Your task to perform on an android device: star an email in the gmail app Image 0: 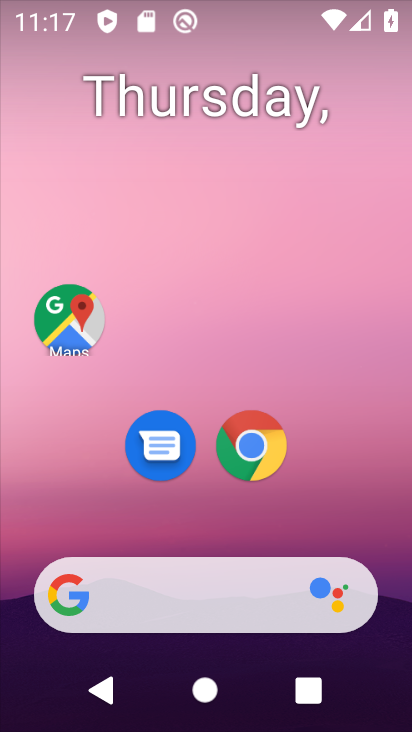
Step 0: drag from (101, 556) to (181, 95)
Your task to perform on an android device: star an email in the gmail app Image 1: 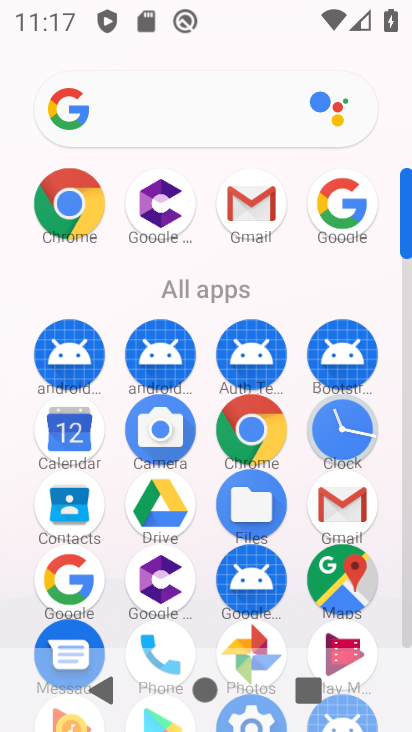
Step 1: click (345, 504)
Your task to perform on an android device: star an email in the gmail app Image 2: 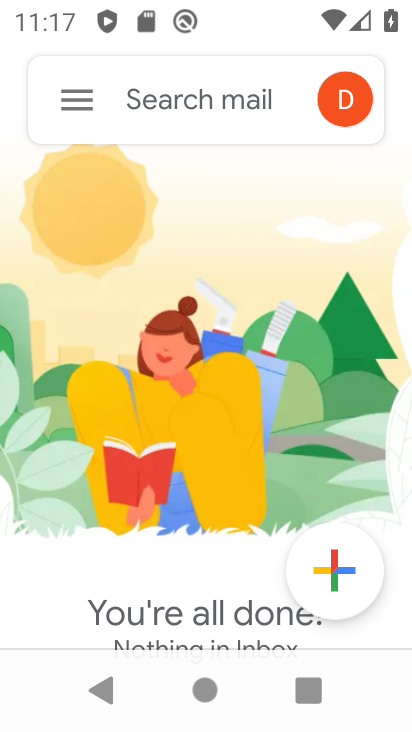
Step 2: click (63, 110)
Your task to perform on an android device: star an email in the gmail app Image 3: 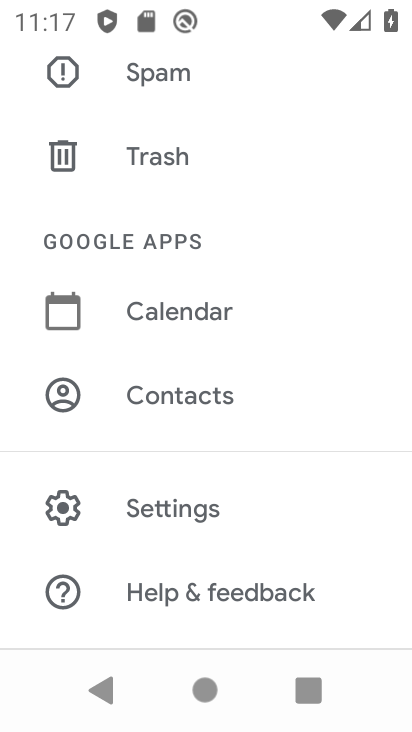
Step 3: drag from (228, 206) to (231, 562)
Your task to perform on an android device: star an email in the gmail app Image 4: 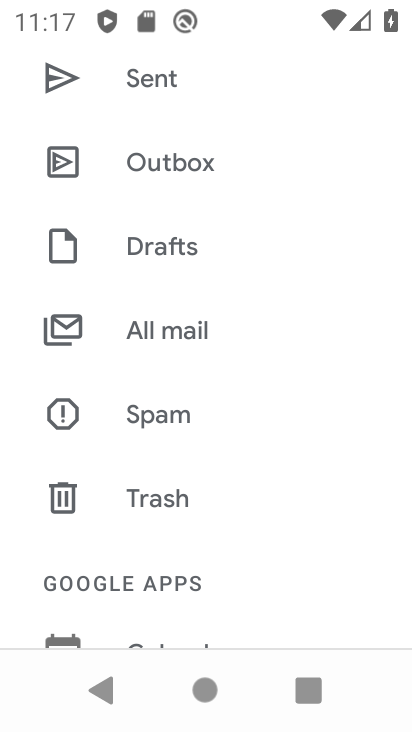
Step 4: click (219, 347)
Your task to perform on an android device: star an email in the gmail app Image 5: 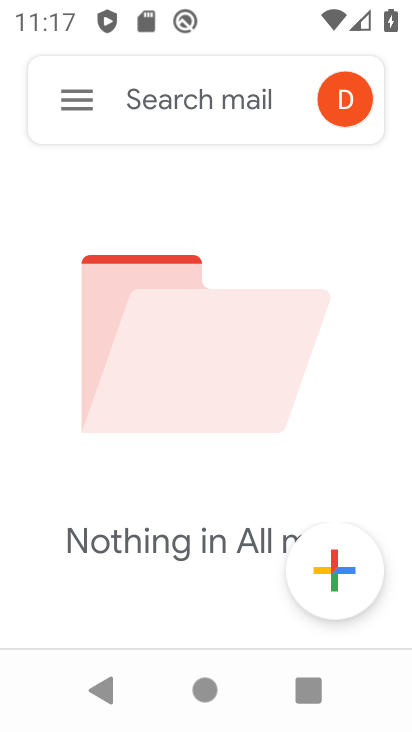
Step 5: task complete